Your task to perform on an android device: Go to privacy settings Image 0: 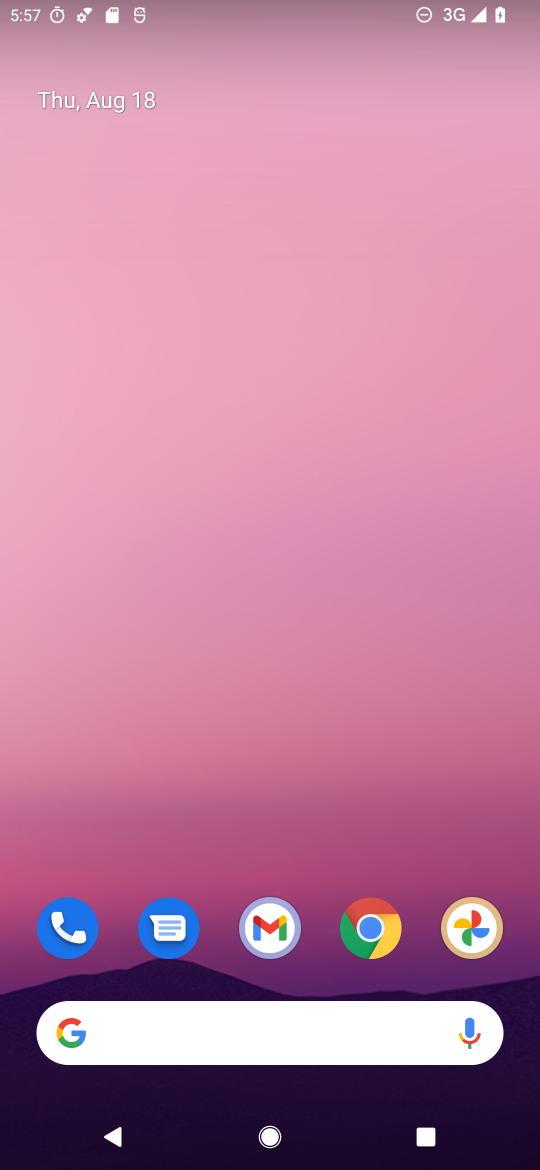
Step 0: drag from (330, 851) to (286, 173)
Your task to perform on an android device: Go to privacy settings Image 1: 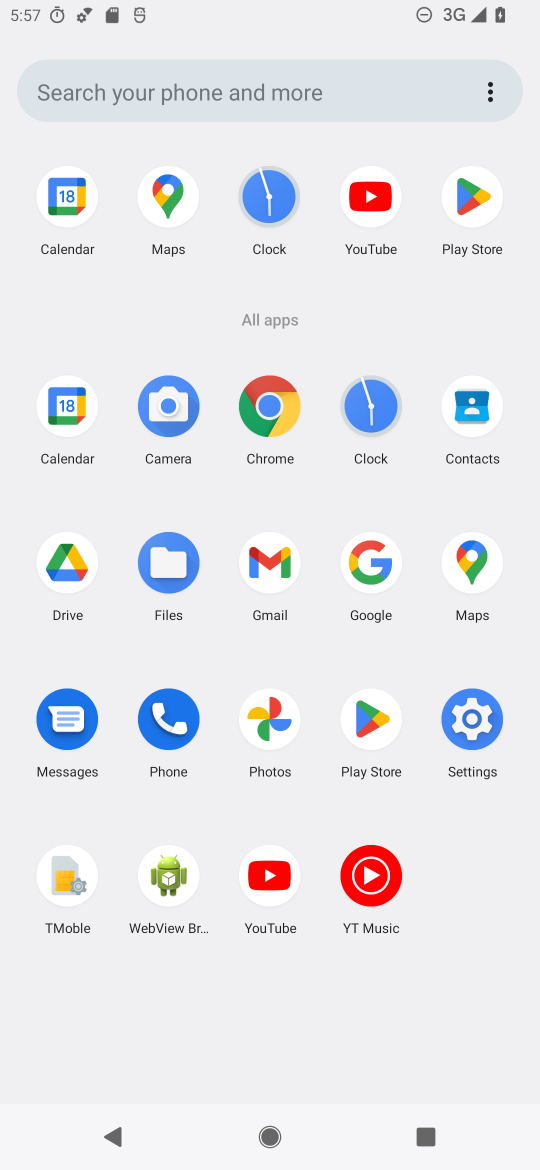
Step 1: click (465, 724)
Your task to perform on an android device: Go to privacy settings Image 2: 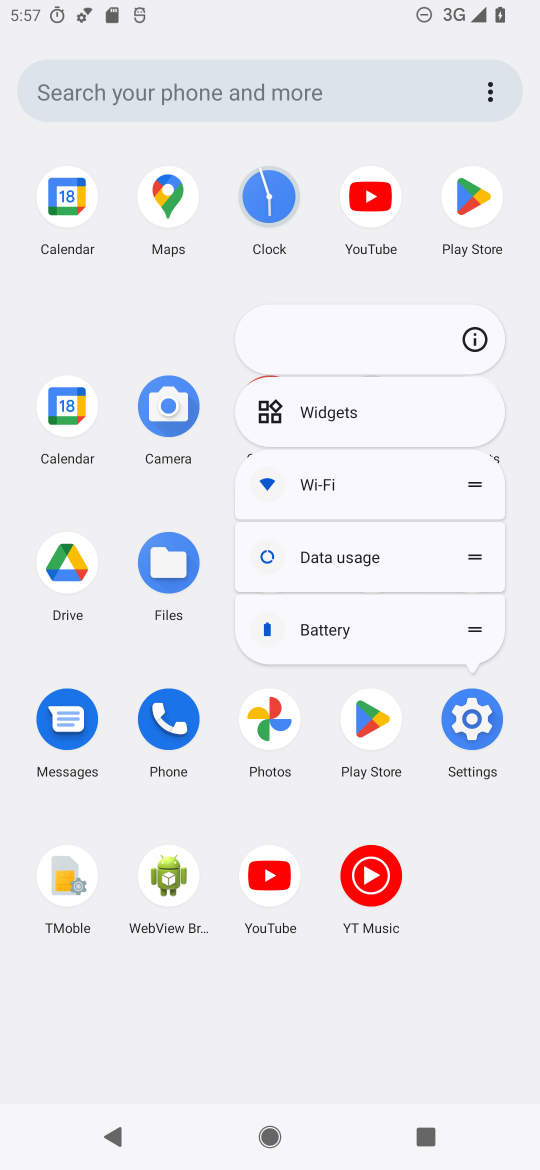
Step 2: click (465, 724)
Your task to perform on an android device: Go to privacy settings Image 3: 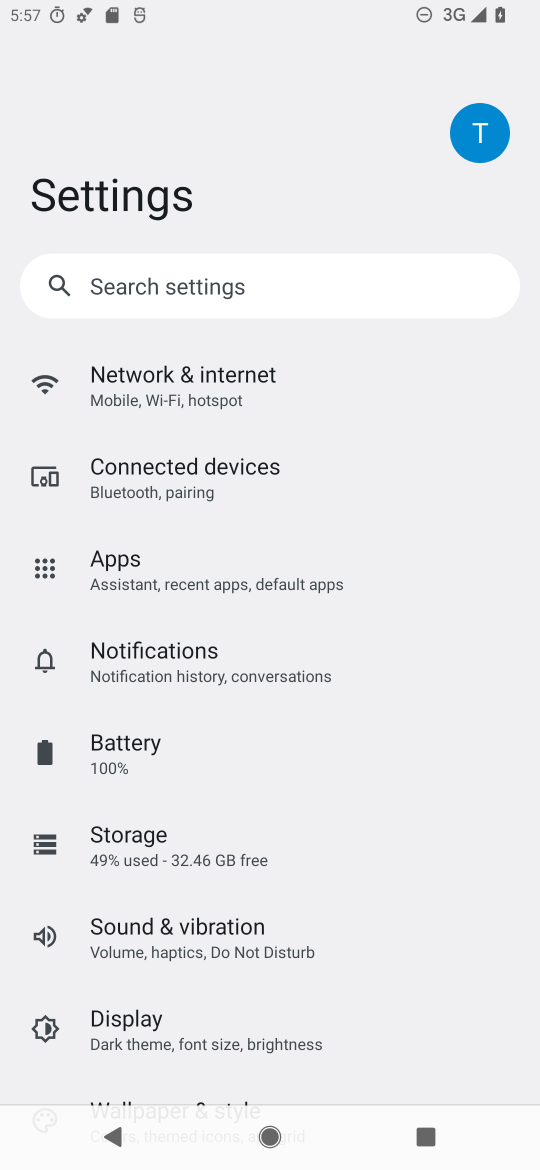
Step 3: drag from (268, 929) to (285, 394)
Your task to perform on an android device: Go to privacy settings Image 4: 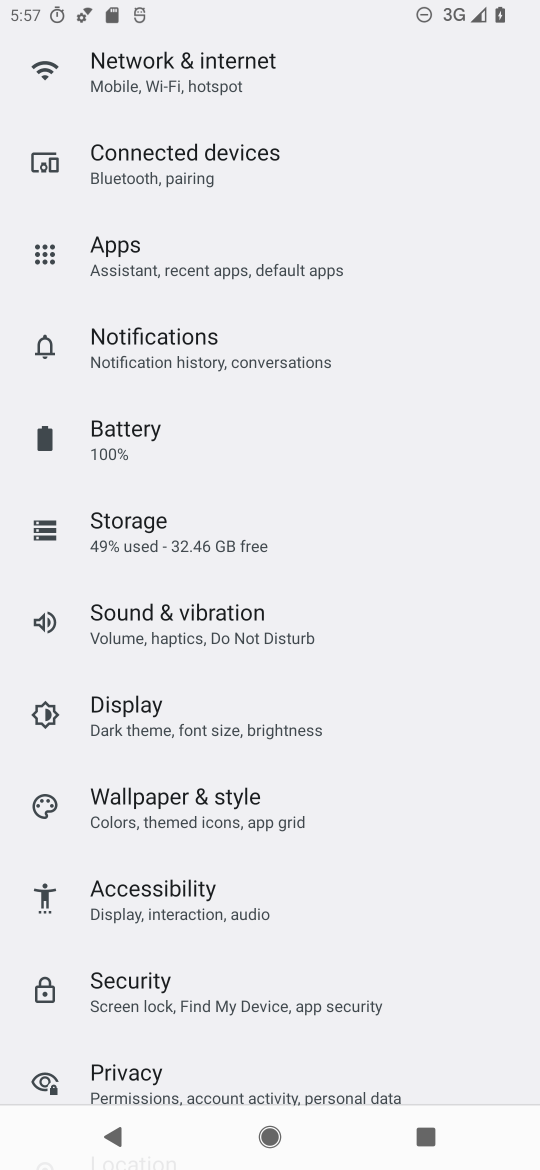
Step 4: drag from (341, 886) to (316, 458)
Your task to perform on an android device: Go to privacy settings Image 5: 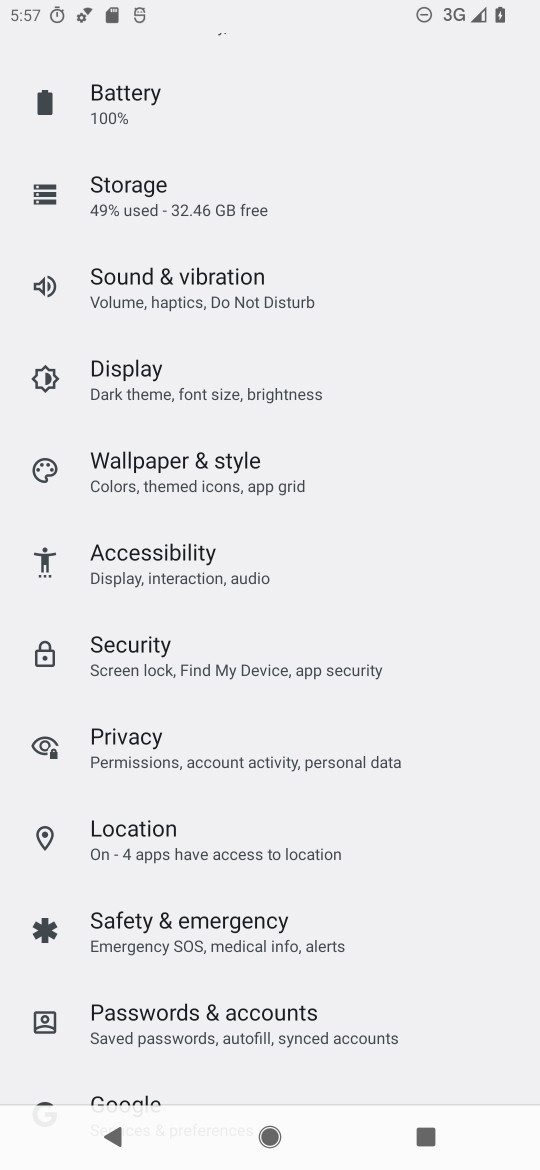
Step 5: click (163, 766)
Your task to perform on an android device: Go to privacy settings Image 6: 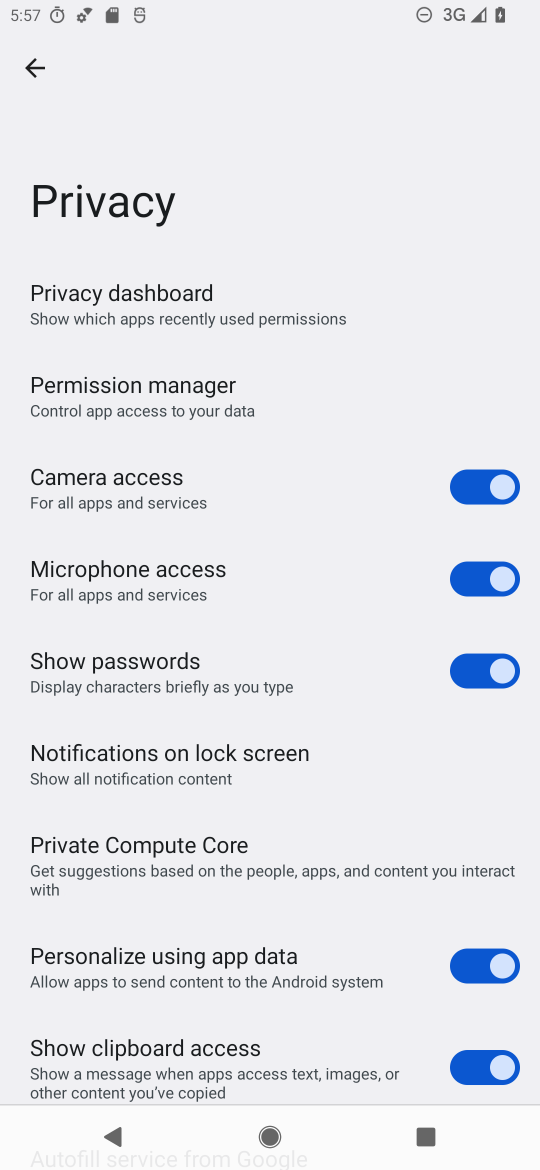
Step 6: task complete